Your task to perform on an android device: Search for hotels in New York Image 0: 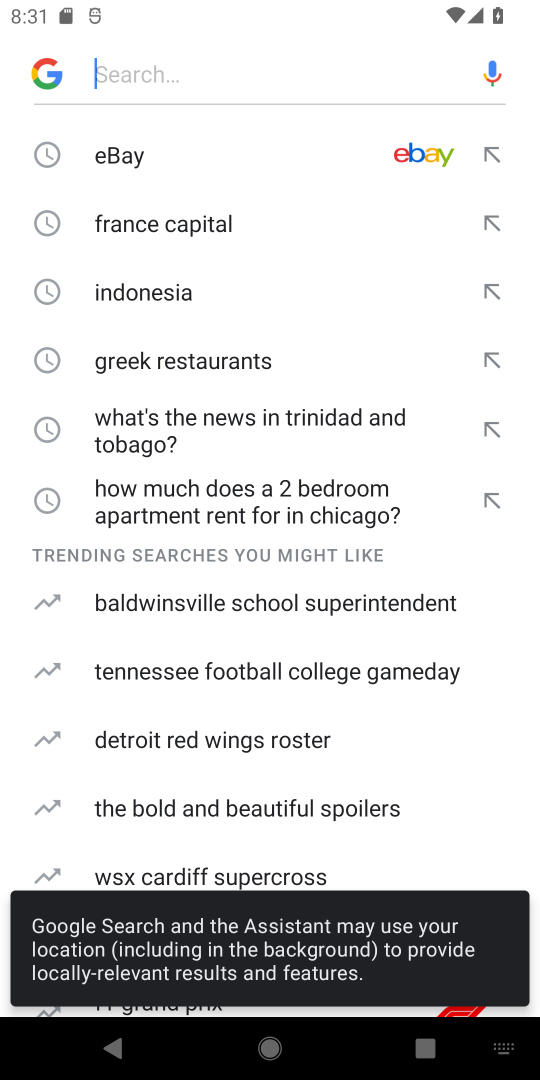
Step 0: press home button
Your task to perform on an android device: Search for hotels in New York Image 1: 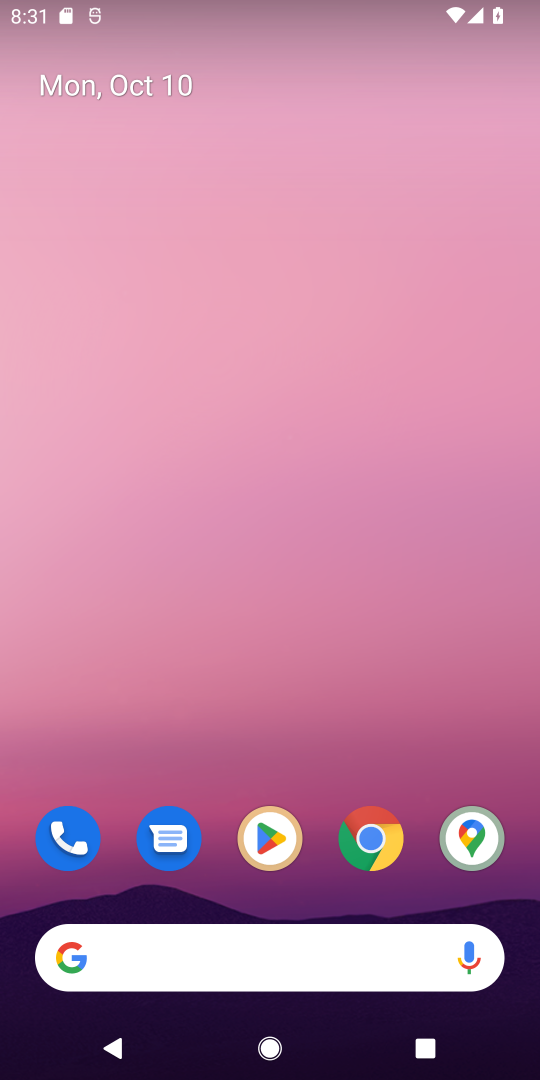
Step 1: click (373, 844)
Your task to perform on an android device: Search for hotels in New York Image 2: 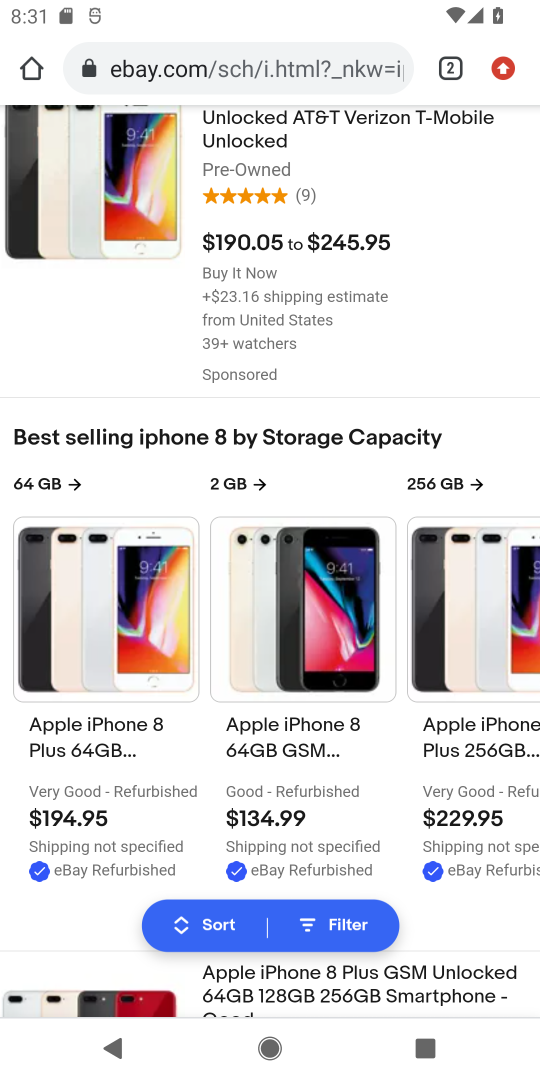
Step 2: click (211, 48)
Your task to perform on an android device: Search for hotels in New York Image 3: 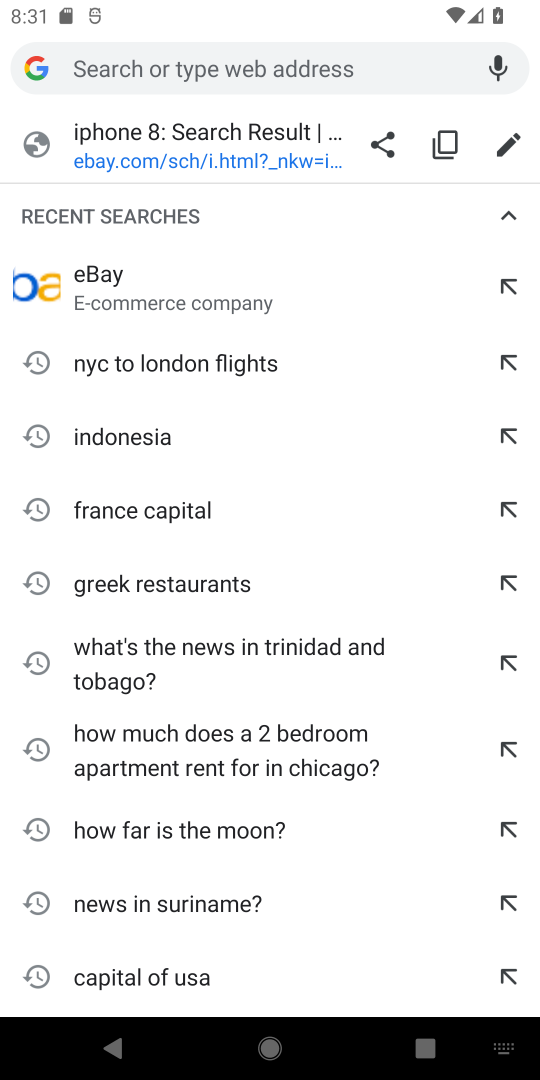
Step 3: type " hotels in New York"
Your task to perform on an android device: Search for hotels in New York Image 4: 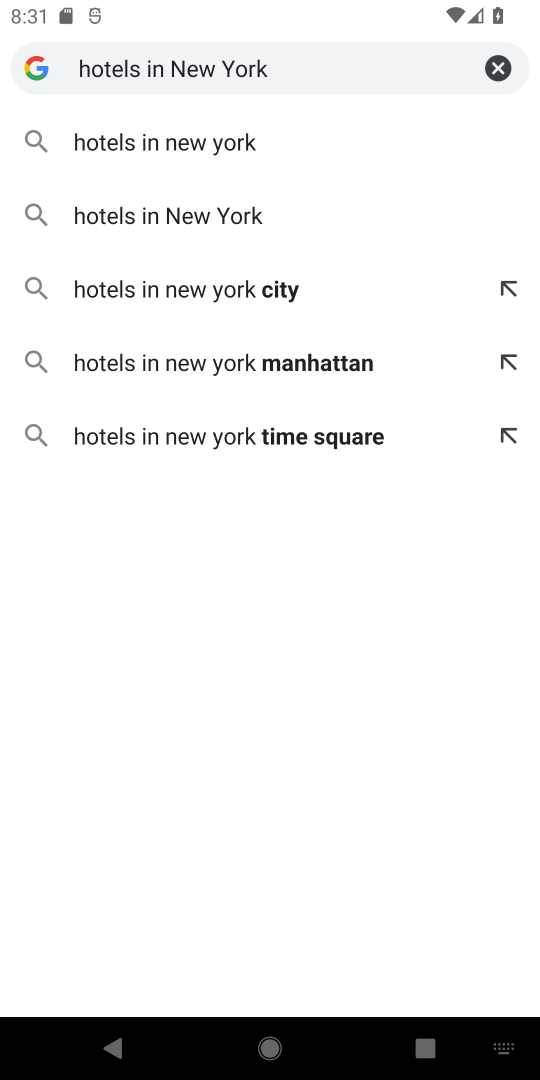
Step 4: click (123, 147)
Your task to perform on an android device: Search for hotels in New York Image 5: 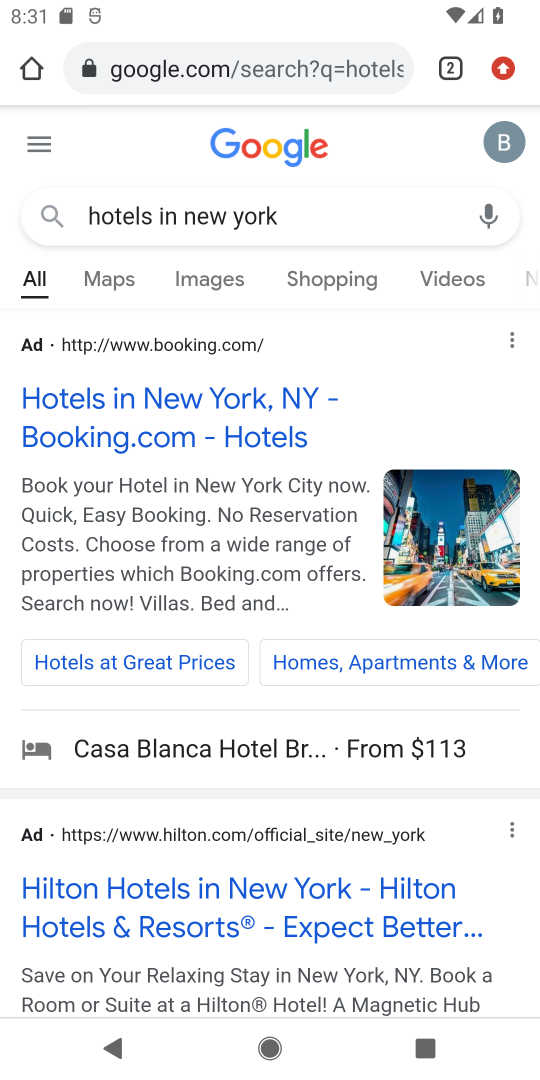
Step 5: click (67, 404)
Your task to perform on an android device: Search for hotels in New York Image 6: 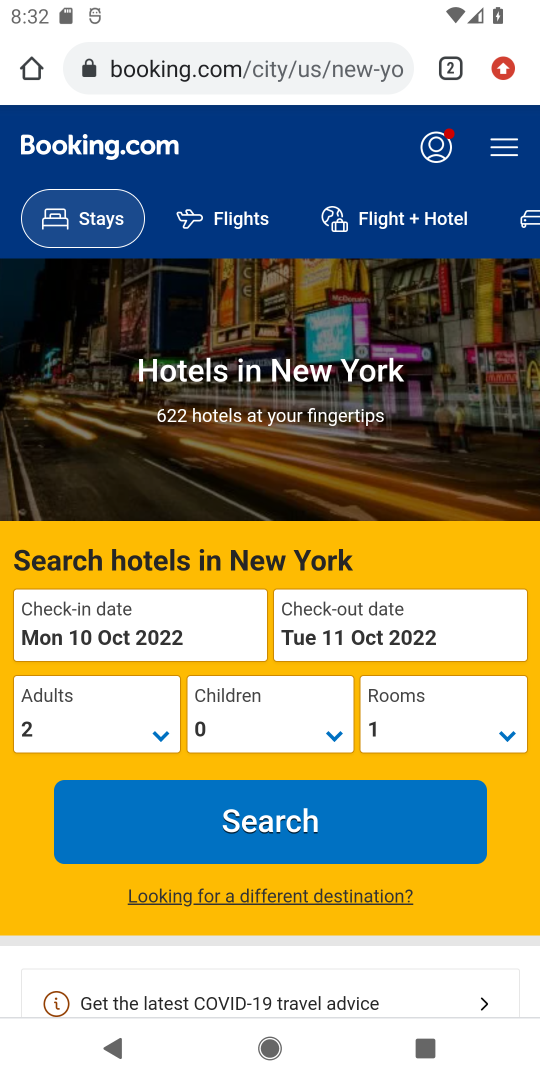
Step 6: click (246, 815)
Your task to perform on an android device: Search for hotels in New York Image 7: 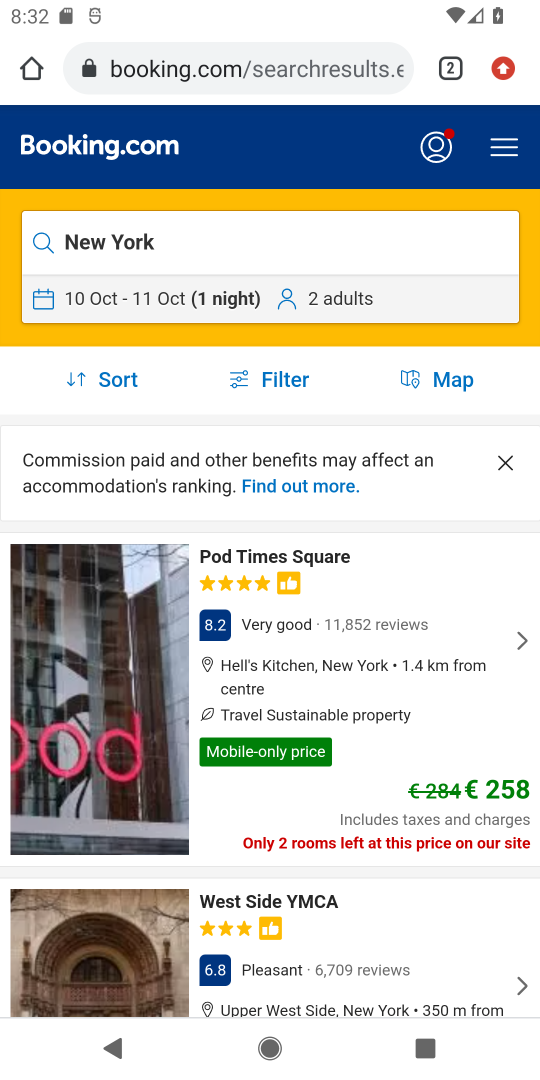
Step 7: task complete